Your task to perform on an android device: delete the emails in spam in the gmail app Image 0: 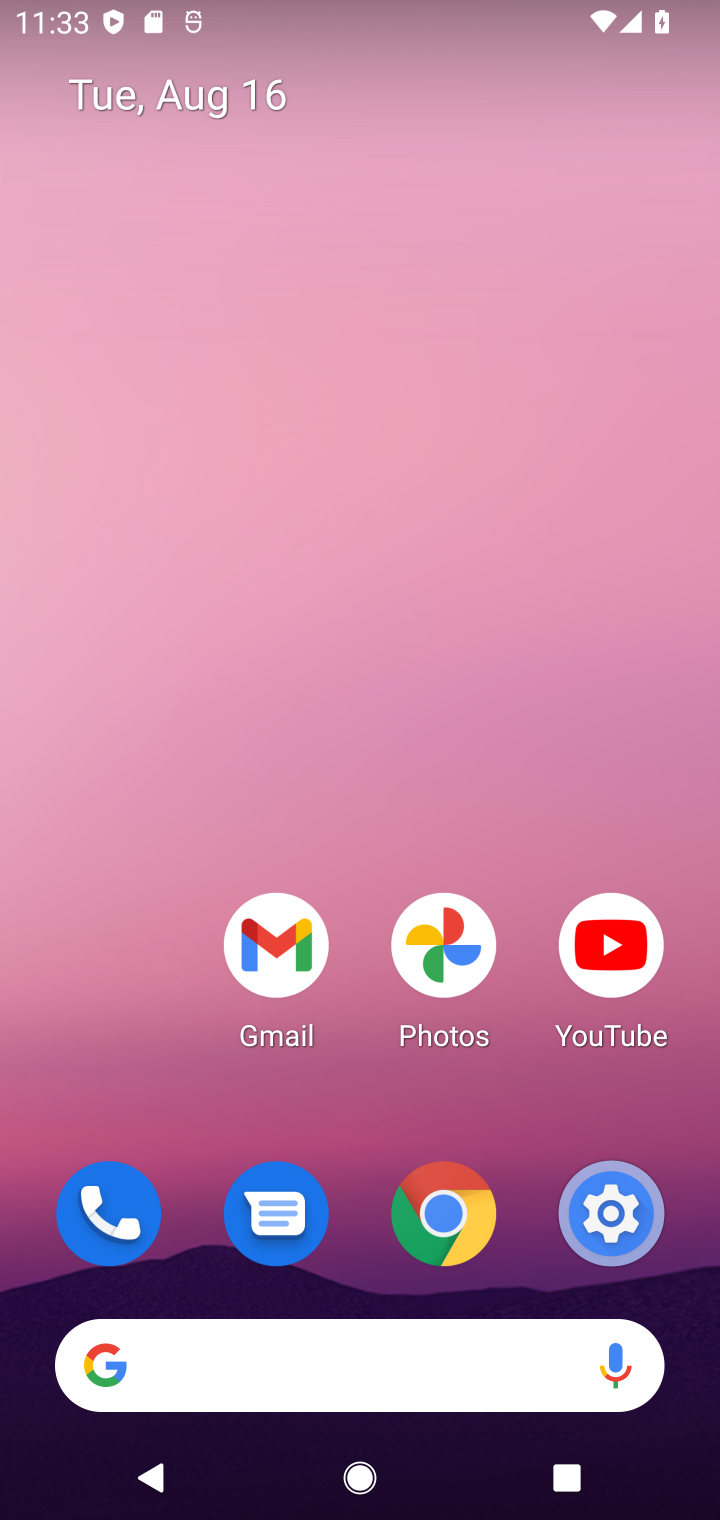
Step 0: press home button
Your task to perform on an android device: delete the emails in spam in the gmail app Image 1: 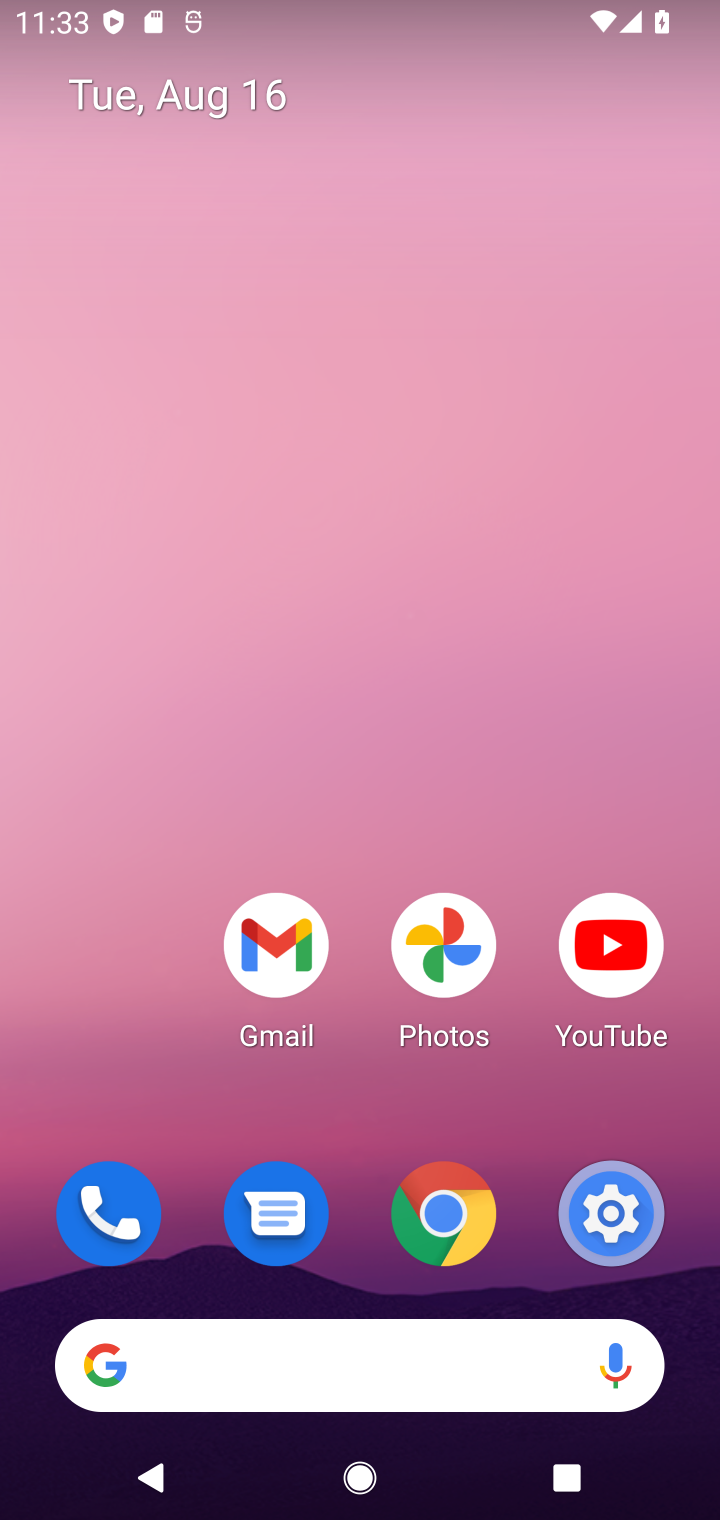
Step 1: drag from (346, 938) to (457, 20)
Your task to perform on an android device: delete the emails in spam in the gmail app Image 2: 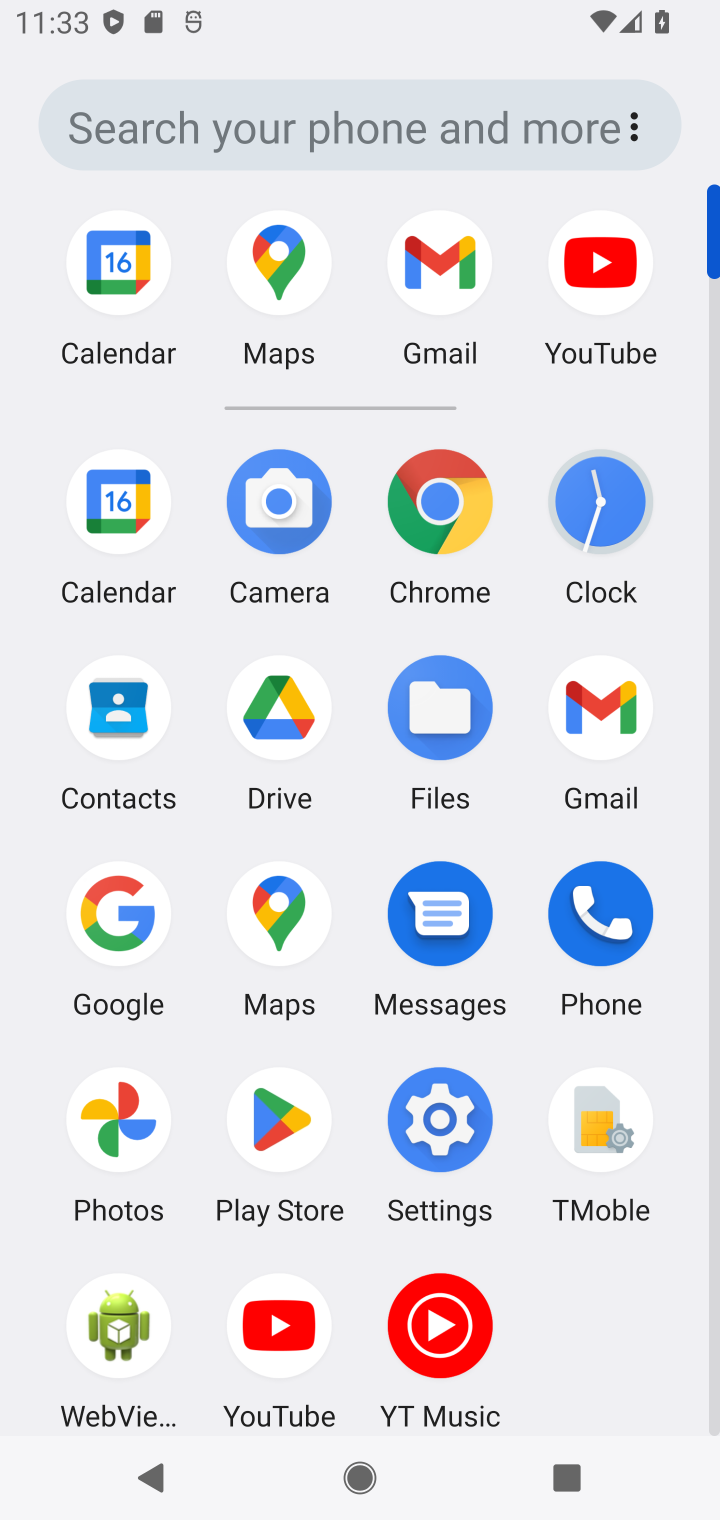
Step 2: click (606, 685)
Your task to perform on an android device: delete the emails in spam in the gmail app Image 3: 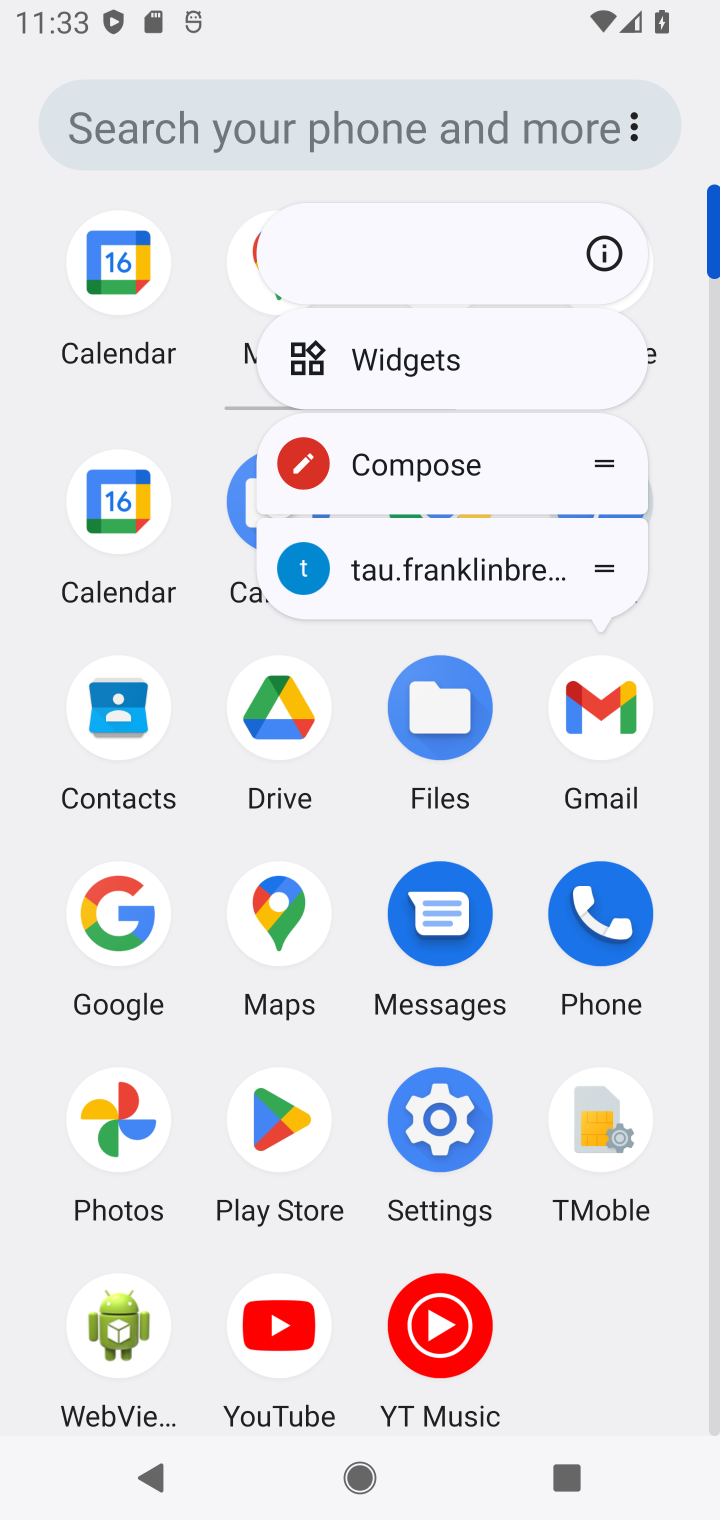
Step 3: click (560, 733)
Your task to perform on an android device: delete the emails in spam in the gmail app Image 4: 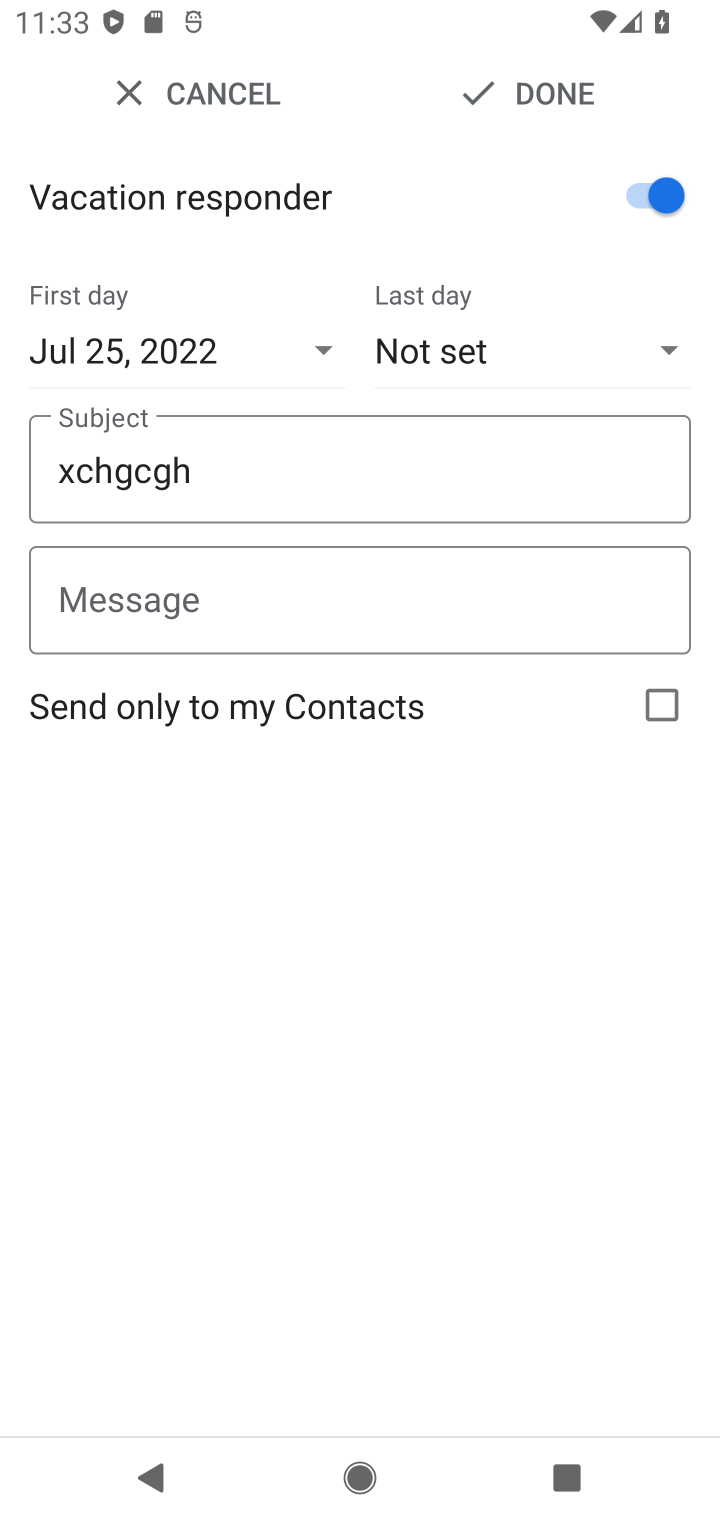
Step 4: press back button
Your task to perform on an android device: delete the emails in spam in the gmail app Image 5: 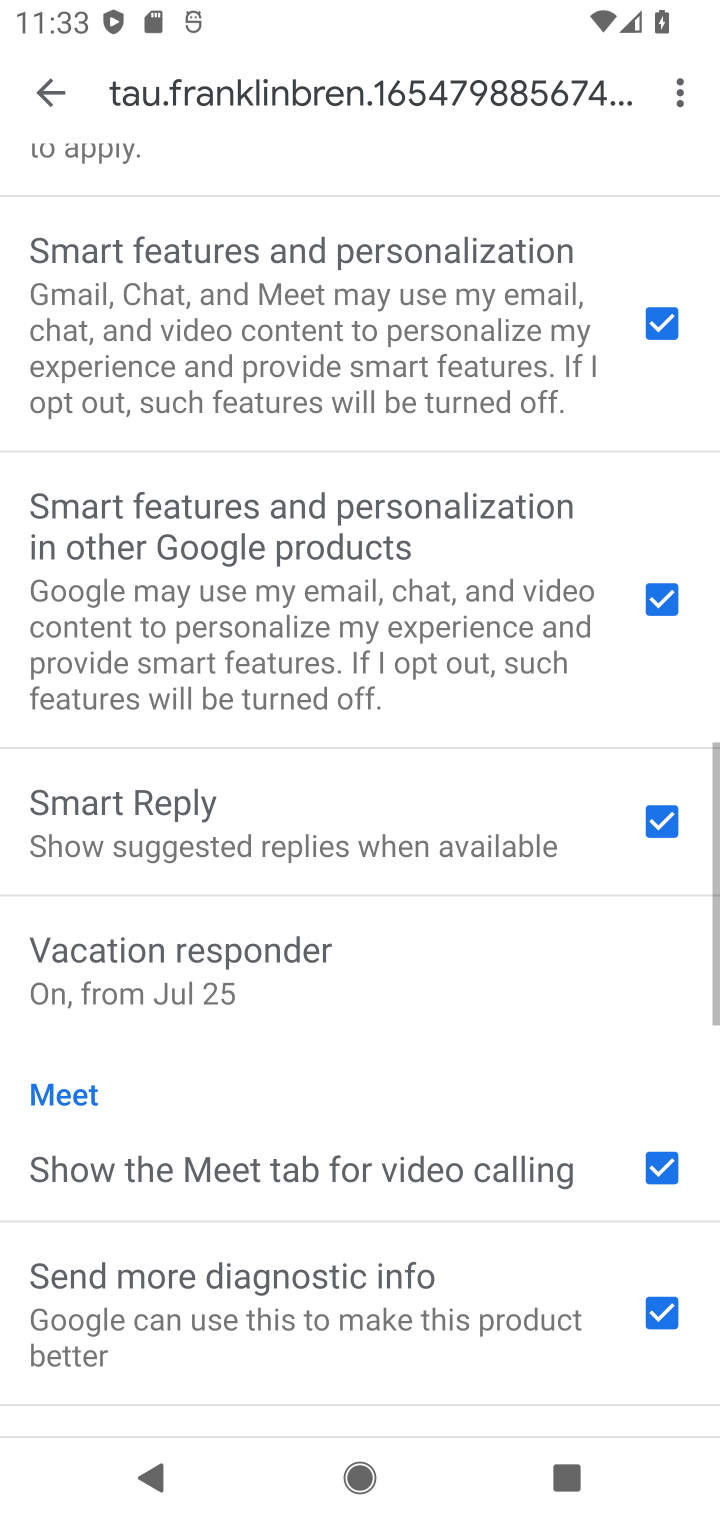
Step 5: press back button
Your task to perform on an android device: delete the emails in spam in the gmail app Image 6: 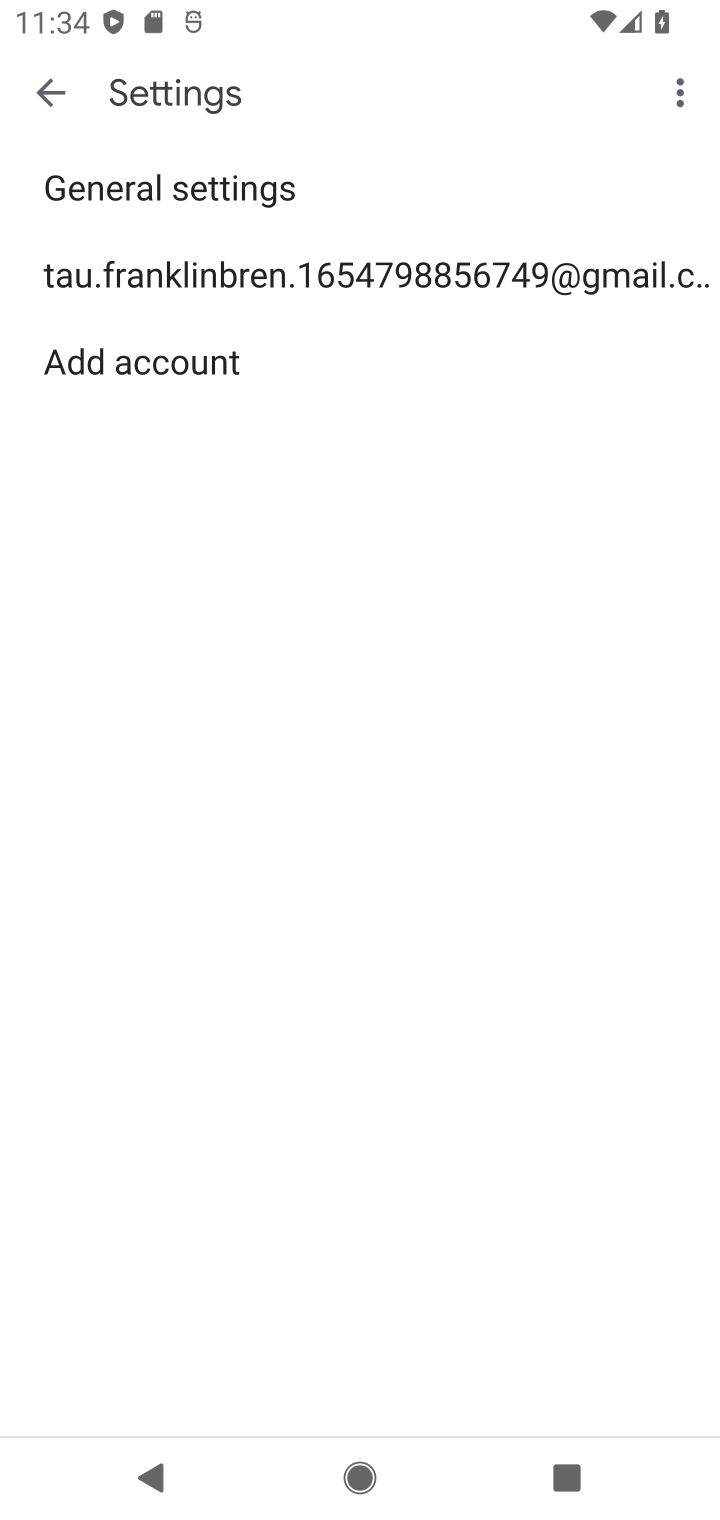
Step 6: press back button
Your task to perform on an android device: delete the emails in spam in the gmail app Image 7: 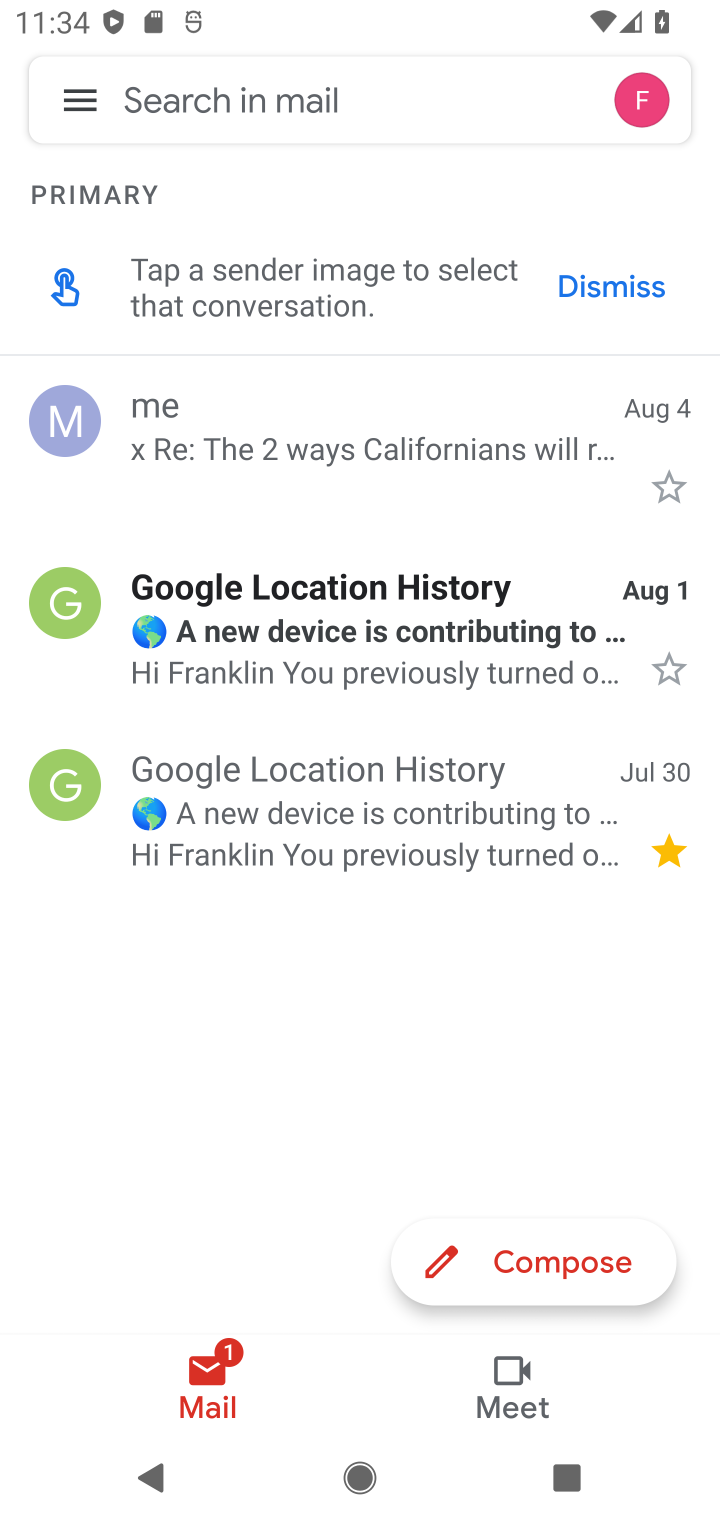
Step 7: click (57, 88)
Your task to perform on an android device: delete the emails in spam in the gmail app Image 8: 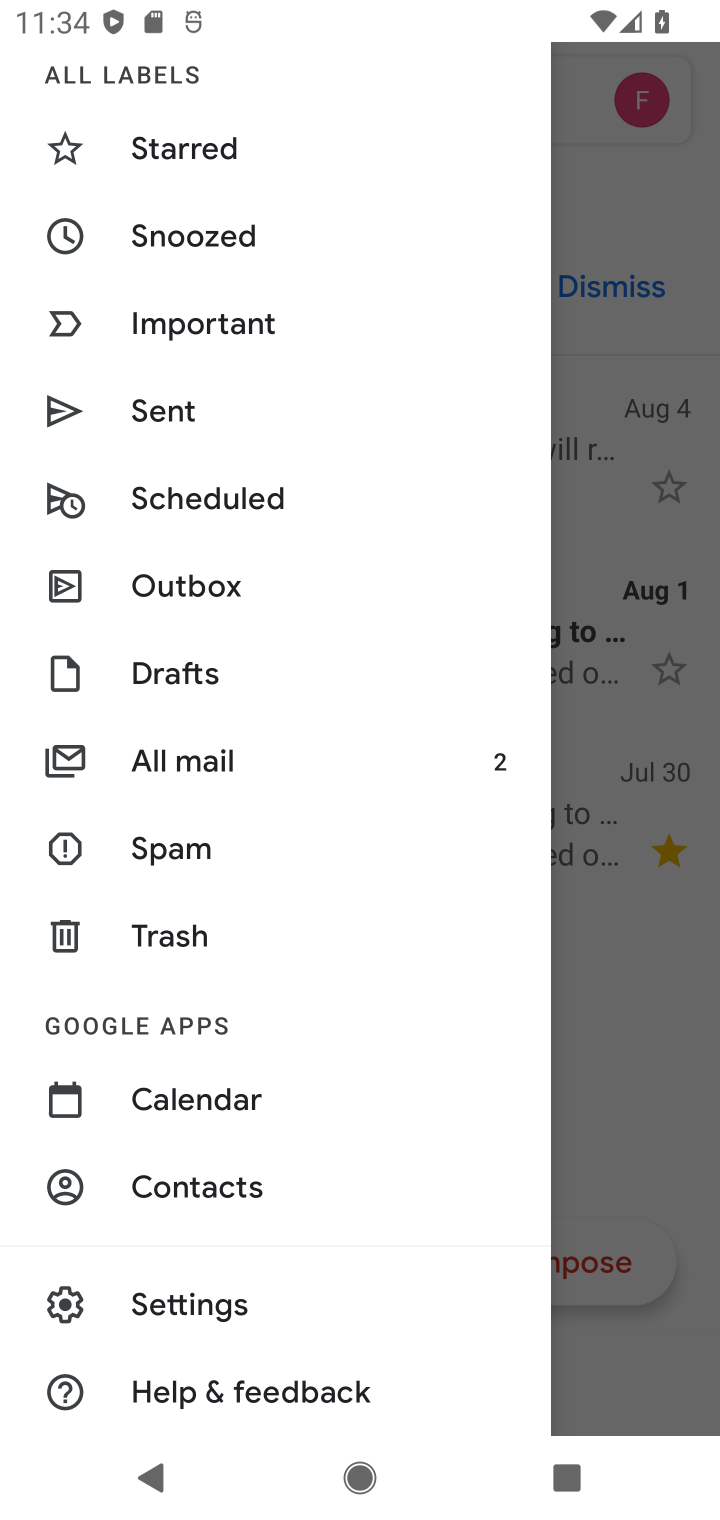
Step 8: click (179, 839)
Your task to perform on an android device: delete the emails in spam in the gmail app Image 9: 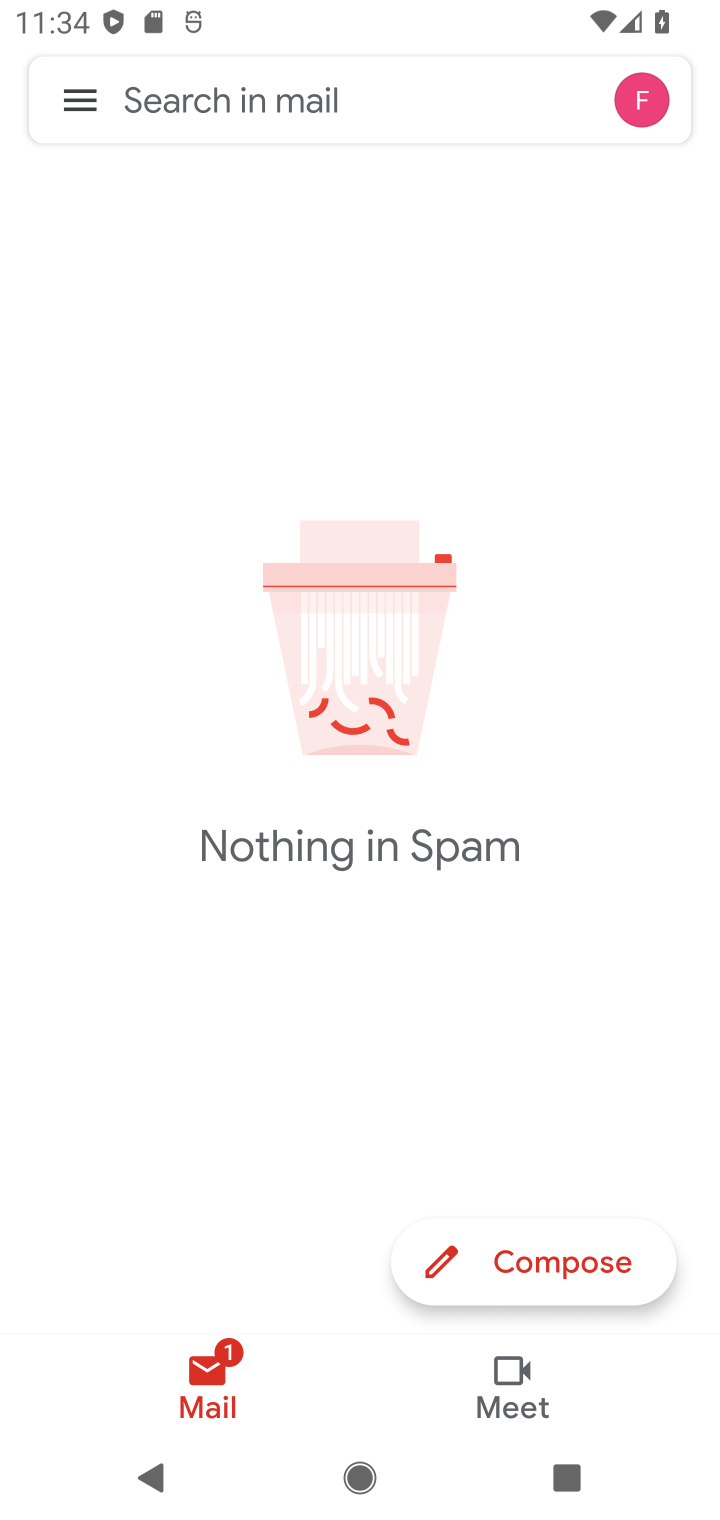
Step 9: task complete